Your task to perform on an android device: Open calendar and show me the second week of next month Image 0: 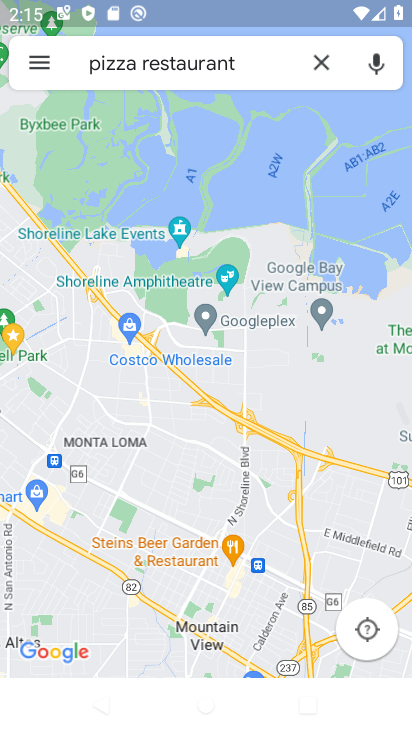
Step 0: press home button
Your task to perform on an android device: Open calendar and show me the second week of next month Image 1: 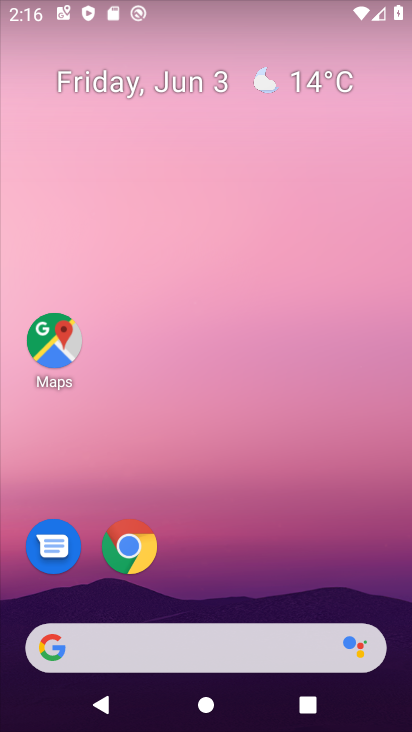
Step 1: drag from (315, 505) to (329, 21)
Your task to perform on an android device: Open calendar and show me the second week of next month Image 2: 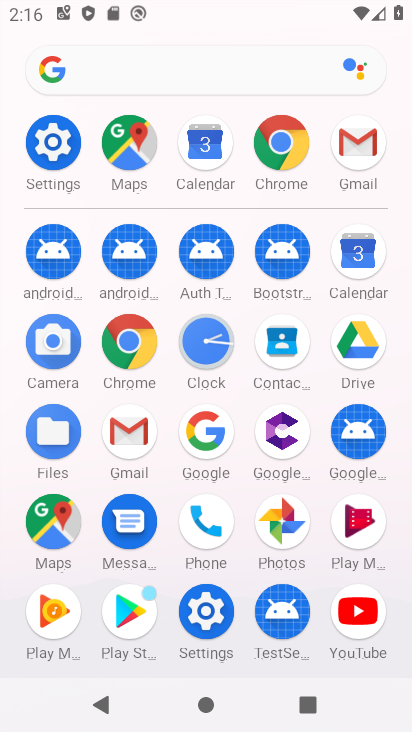
Step 2: click (345, 257)
Your task to perform on an android device: Open calendar and show me the second week of next month Image 3: 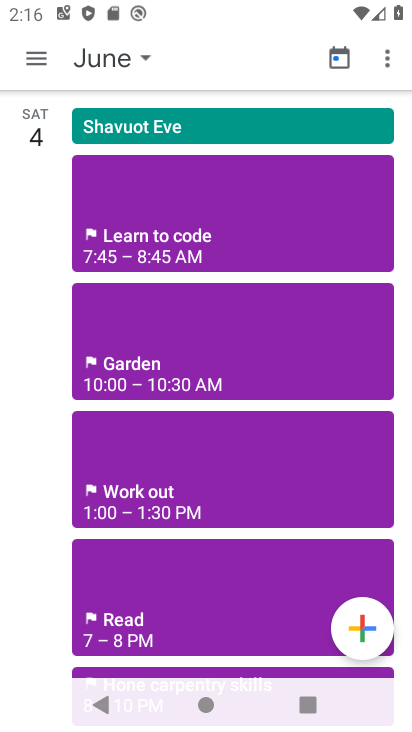
Step 3: click (145, 51)
Your task to perform on an android device: Open calendar and show me the second week of next month Image 4: 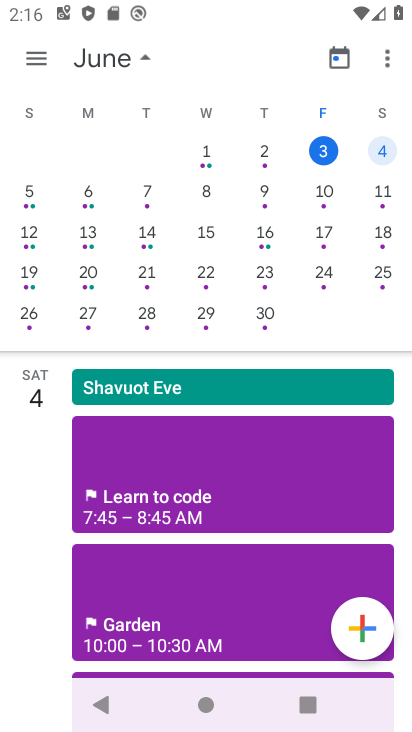
Step 4: drag from (377, 257) to (5, 173)
Your task to perform on an android device: Open calendar and show me the second week of next month Image 5: 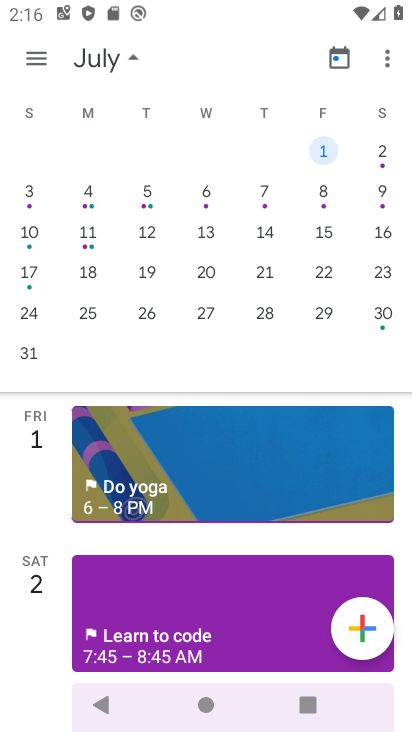
Step 5: click (334, 235)
Your task to perform on an android device: Open calendar and show me the second week of next month Image 6: 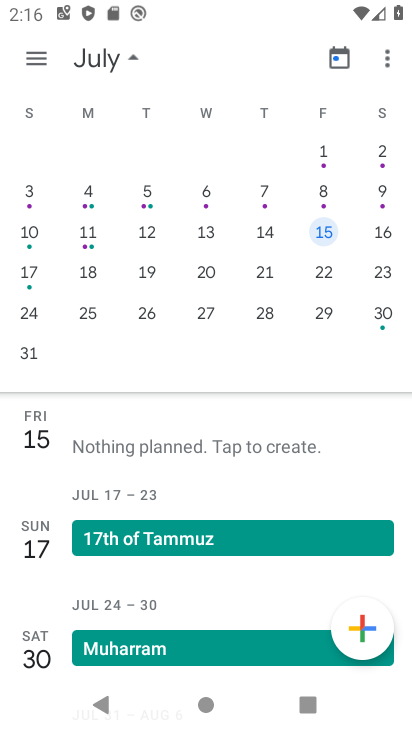
Step 6: task complete